Your task to perform on an android device: change the clock display to digital Image 0: 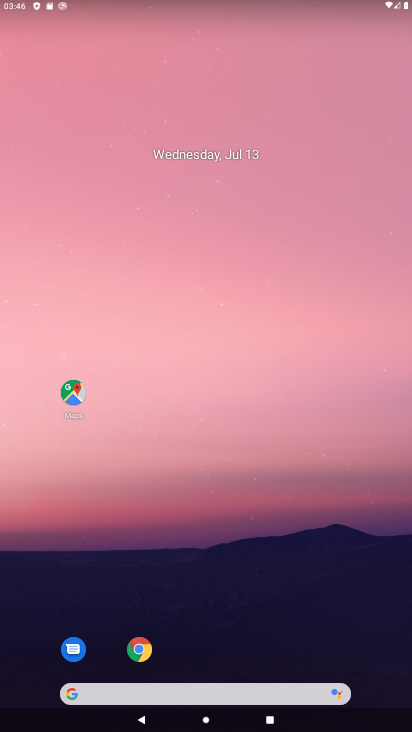
Step 0: drag from (200, 689) to (309, 182)
Your task to perform on an android device: change the clock display to digital Image 1: 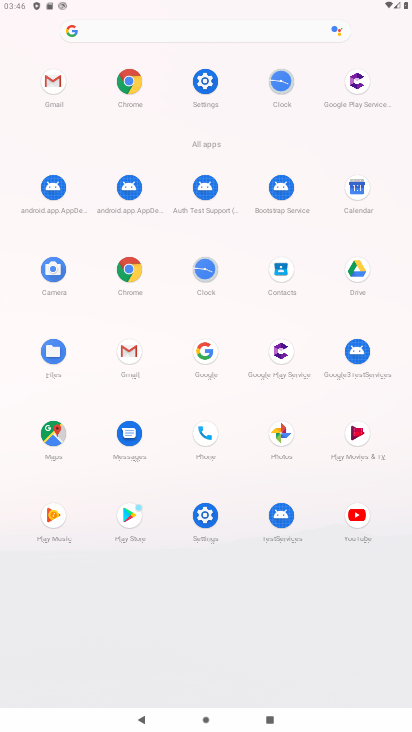
Step 1: click (280, 83)
Your task to perform on an android device: change the clock display to digital Image 2: 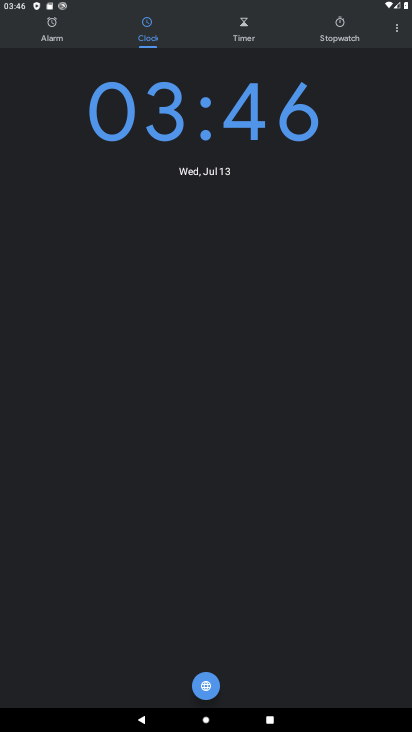
Step 2: click (398, 29)
Your task to perform on an android device: change the clock display to digital Image 3: 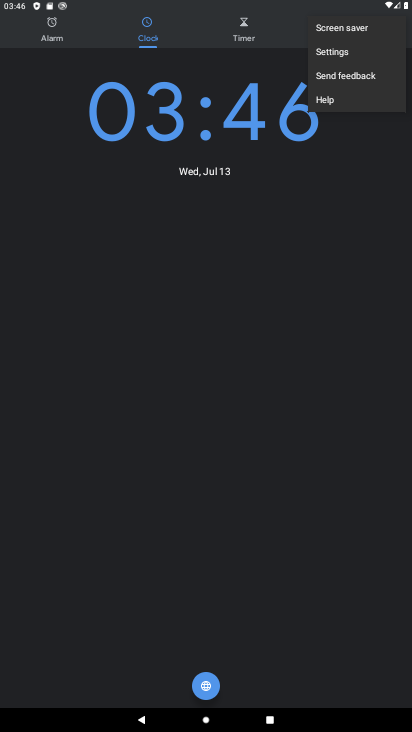
Step 3: click (351, 58)
Your task to perform on an android device: change the clock display to digital Image 4: 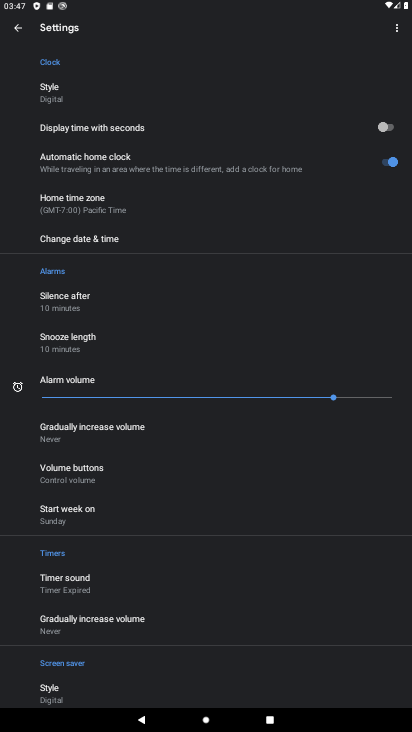
Step 4: click (64, 96)
Your task to perform on an android device: change the clock display to digital Image 5: 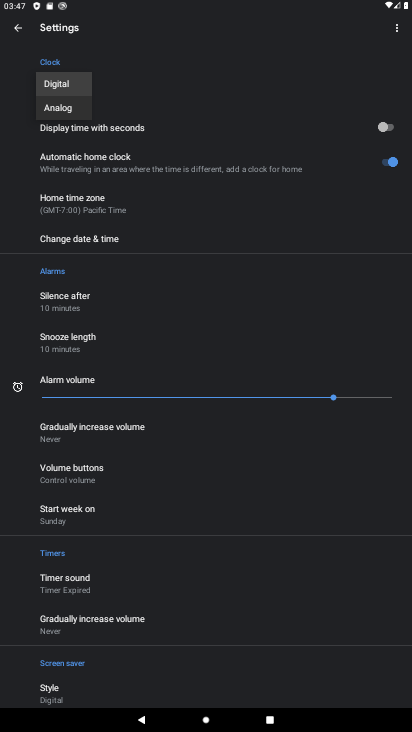
Step 5: click (68, 86)
Your task to perform on an android device: change the clock display to digital Image 6: 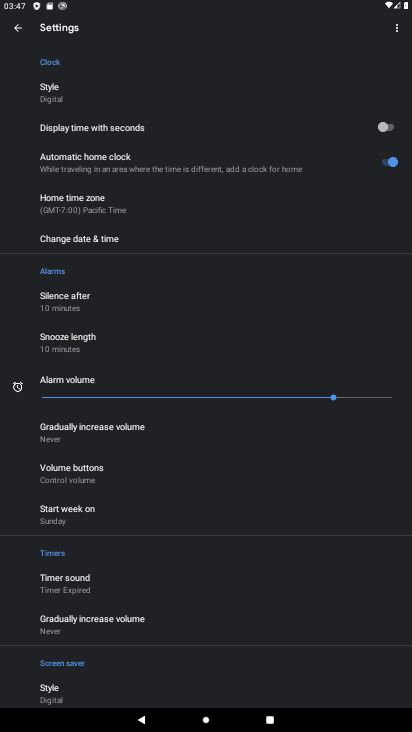
Step 6: task complete